Your task to perform on an android device: Add "corsair k70" to the cart on bestbuy.com Image 0: 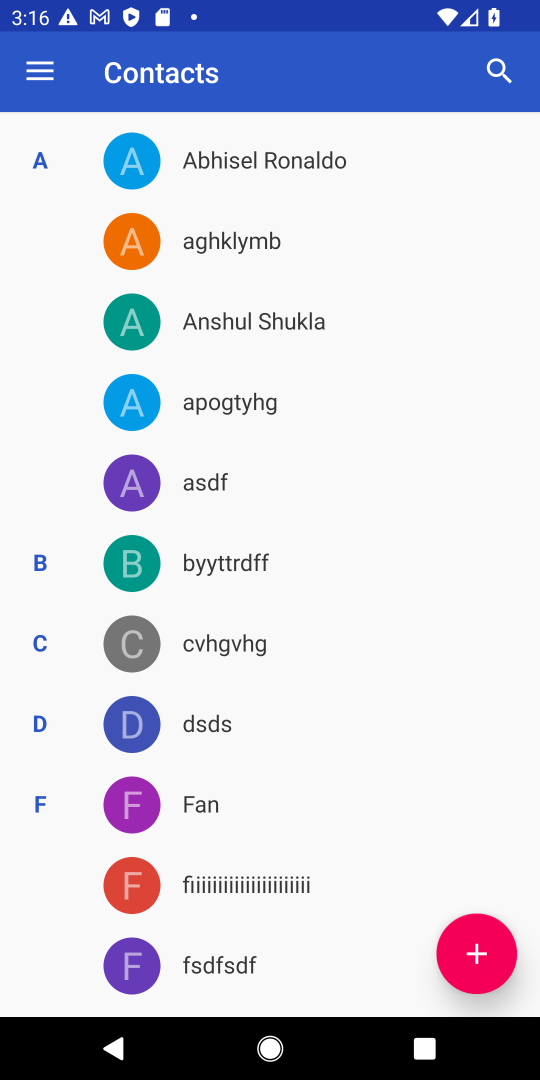
Step 0: press home button
Your task to perform on an android device: Add "corsair k70" to the cart on bestbuy.com Image 1: 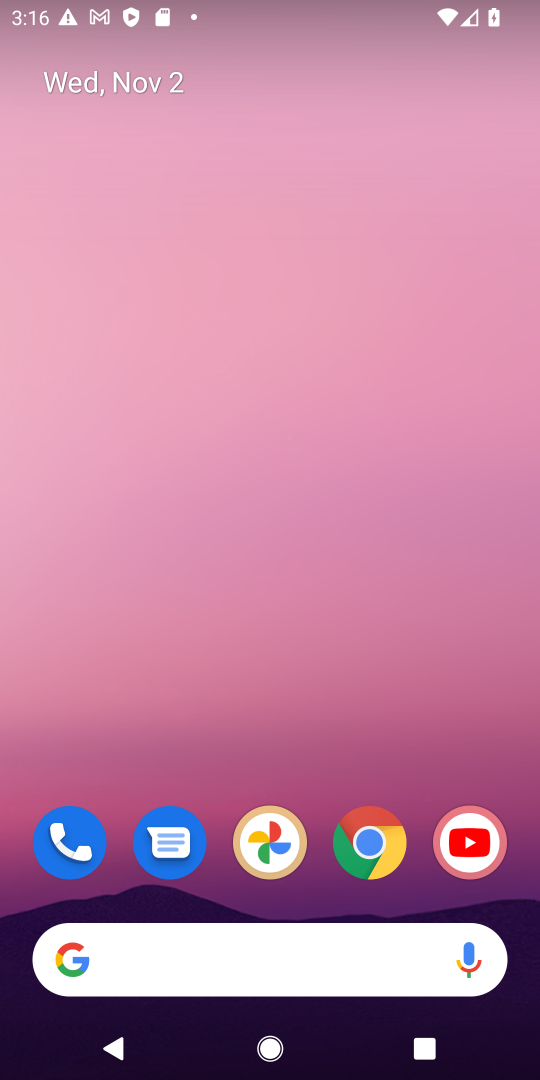
Step 1: click (361, 855)
Your task to perform on an android device: Add "corsair k70" to the cart on bestbuy.com Image 2: 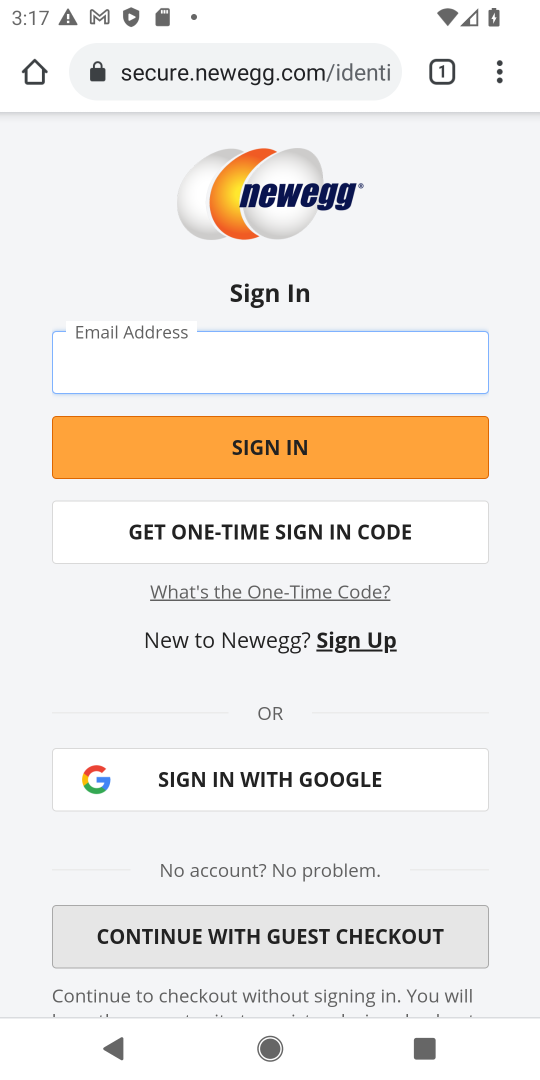
Step 2: click (286, 74)
Your task to perform on an android device: Add "corsair k70" to the cart on bestbuy.com Image 3: 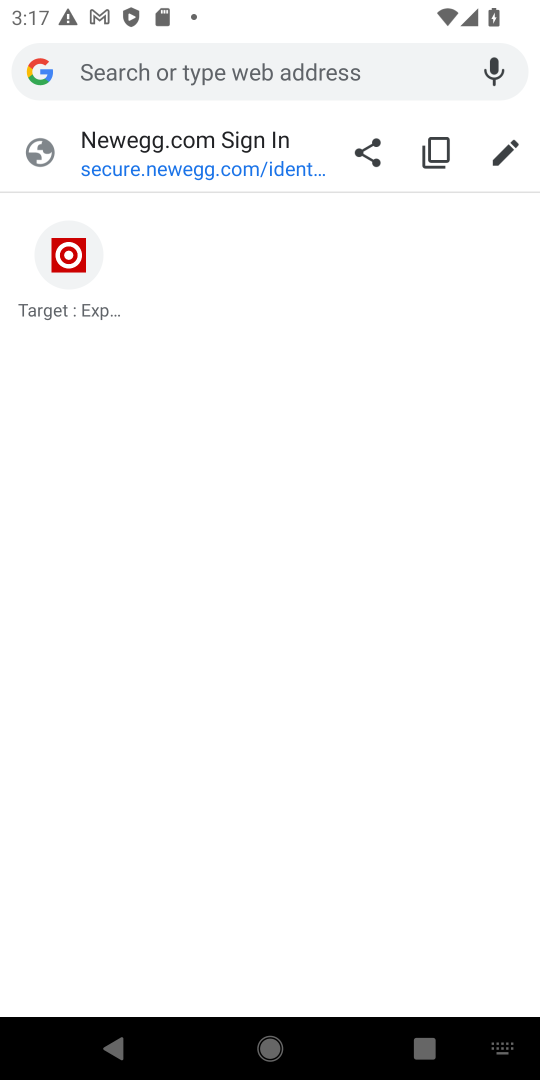
Step 3: type "bestbuy"
Your task to perform on an android device: Add "corsair k70" to the cart on bestbuy.com Image 4: 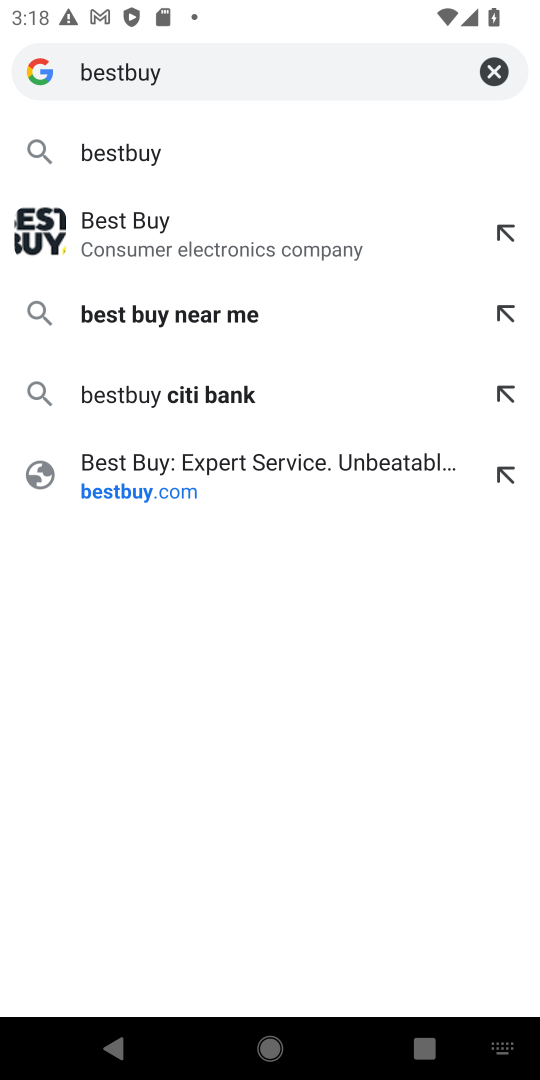
Step 4: click (162, 150)
Your task to perform on an android device: Add "corsair k70" to the cart on bestbuy.com Image 5: 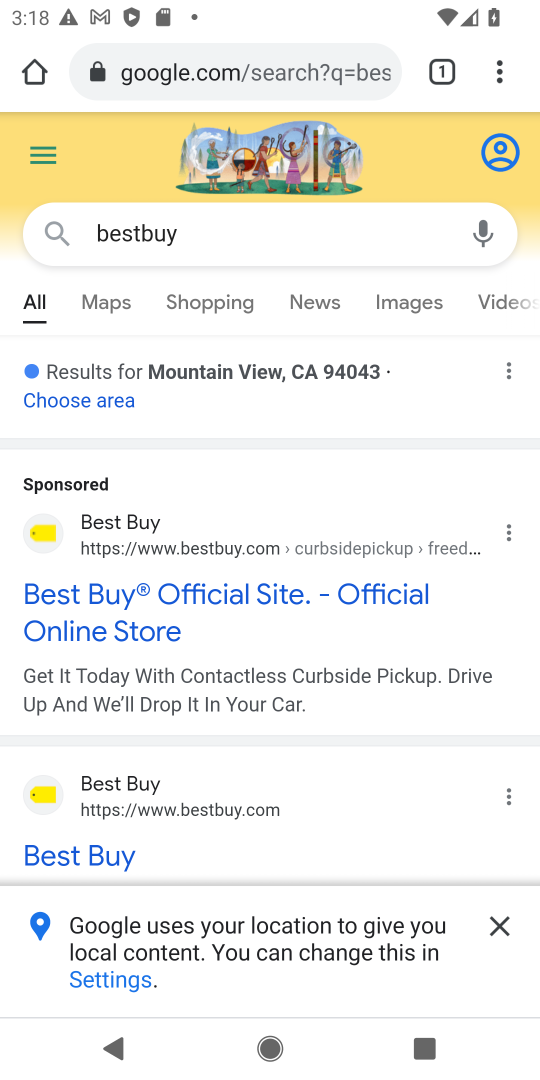
Step 5: click (68, 590)
Your task to perform on an android device: Add "corsair k70" to the cart on bestbuy.com Image 6: 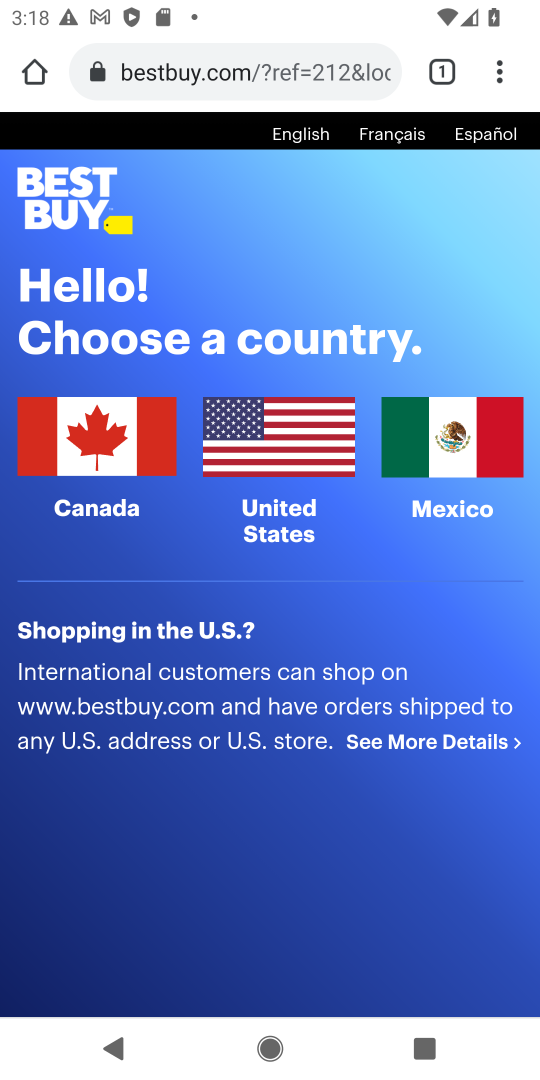
Step 6: click (282, 438)
Your task to perform on an android device: Add "corsair k70" to the cart on bestbuy.com Image 7: 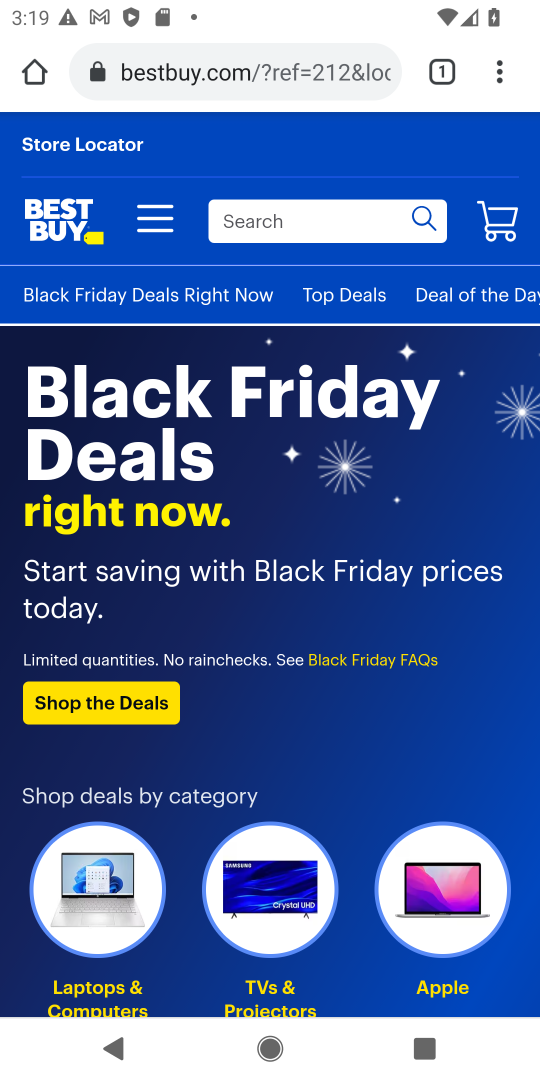
Step 7: click (344, 221)
Your task to perform on an android device: Add "corsair k70" to the cart on bestbuy.com Image 8: 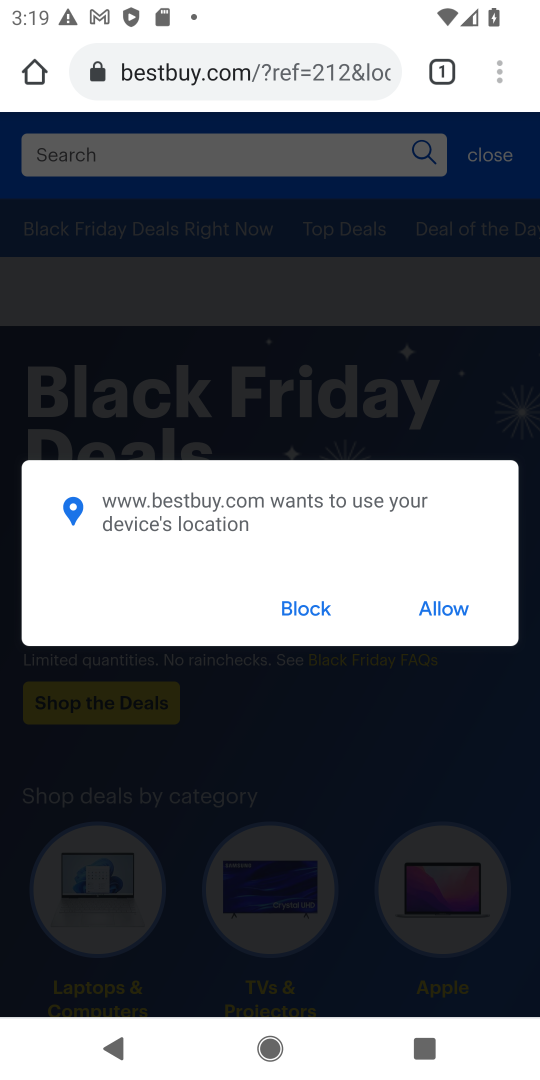
Step 8: click (452, 626)
Your task to perform on an android device: Add "corsair k70" to the cart on bestbuy.com Image 9: 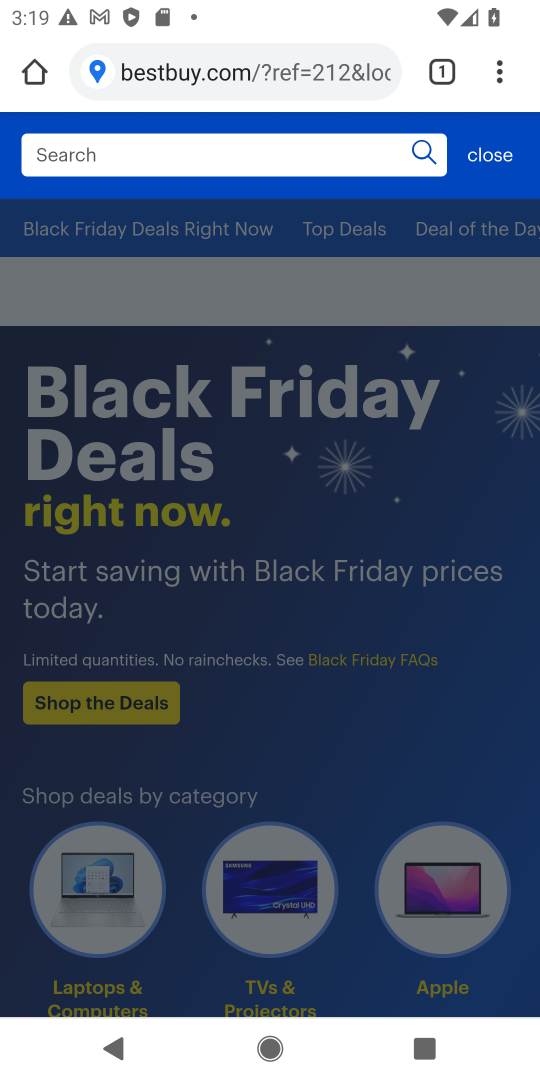
Step 9: click (445, 595)
Your task to perform on an android device: Add "corsair k70" to the cart on bestbuy.com Image 10: 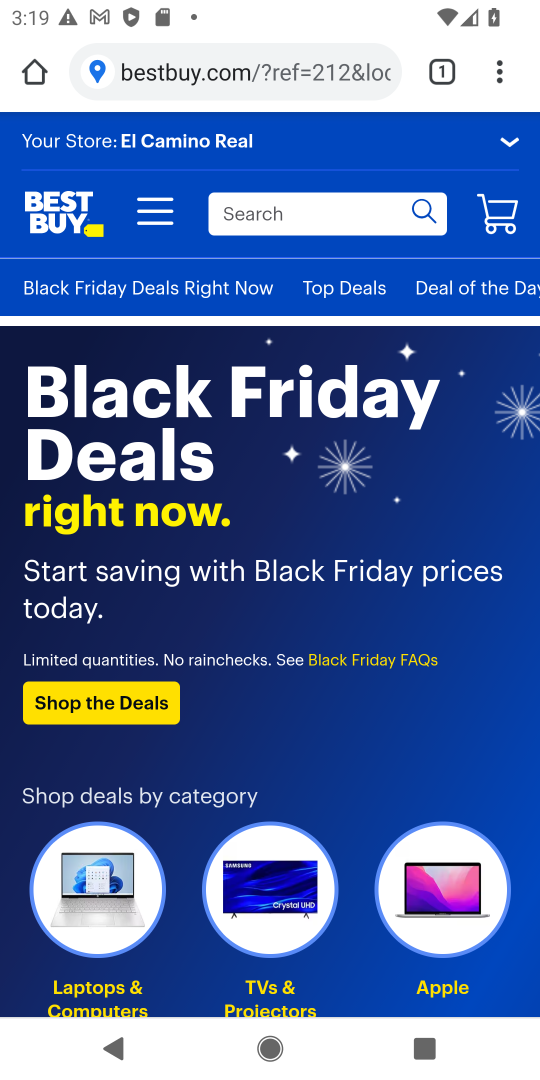
Step 10: click (252, 211)
Your task to perform on an android device: Add "corsair k70" to the cart on bestbuy.com Image 11: 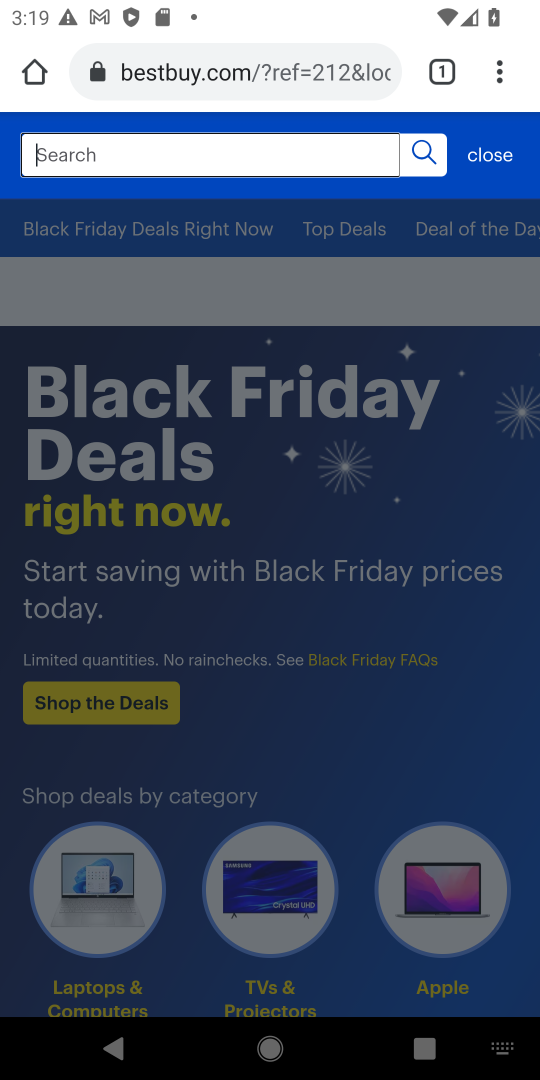
Step 11: type "corsair k70"
Your task to perform on an android device: Add "corsair k70" to the cart on bestbuy.com Image 12: 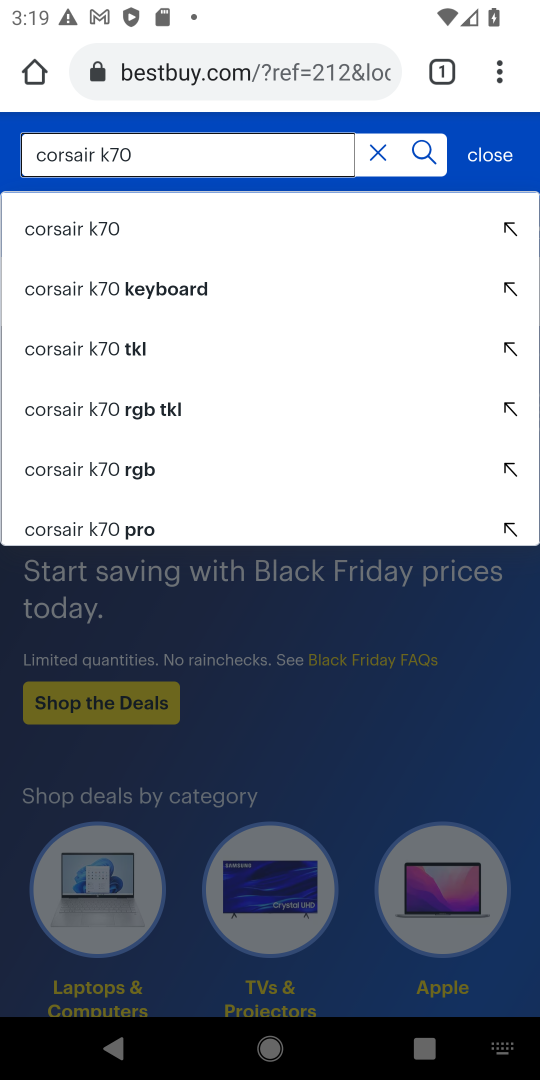
Step 12: click (45, 231)
Your task to perform on an android device: Add "corsair k70" to the cart on bestbuy.com Image 13: 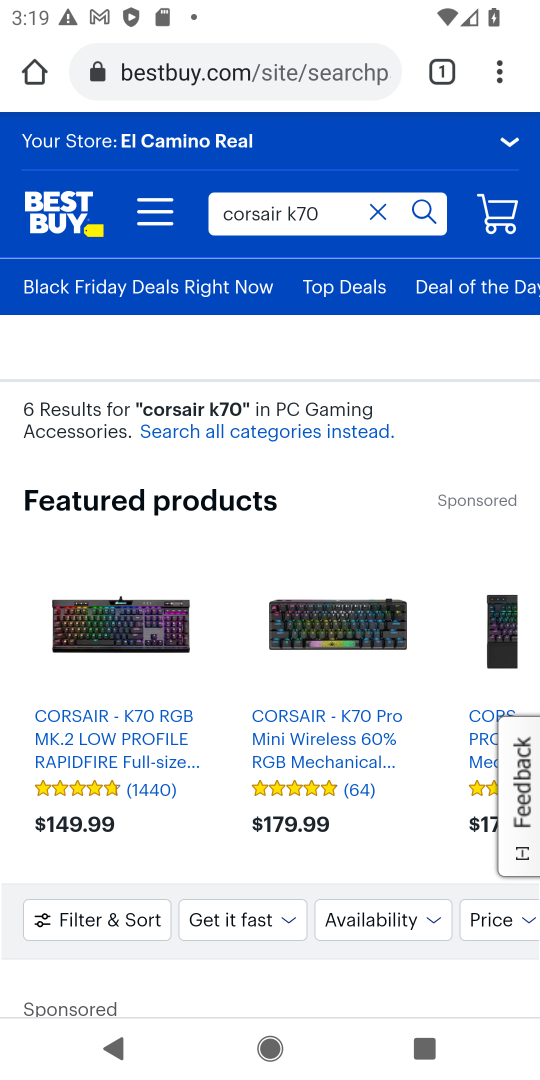
Step 13: drag from (309, 522) to (311, 217)
Your task to perform on an android device: Add "corsair k70" to the cart on bestbuy.com Image 14: 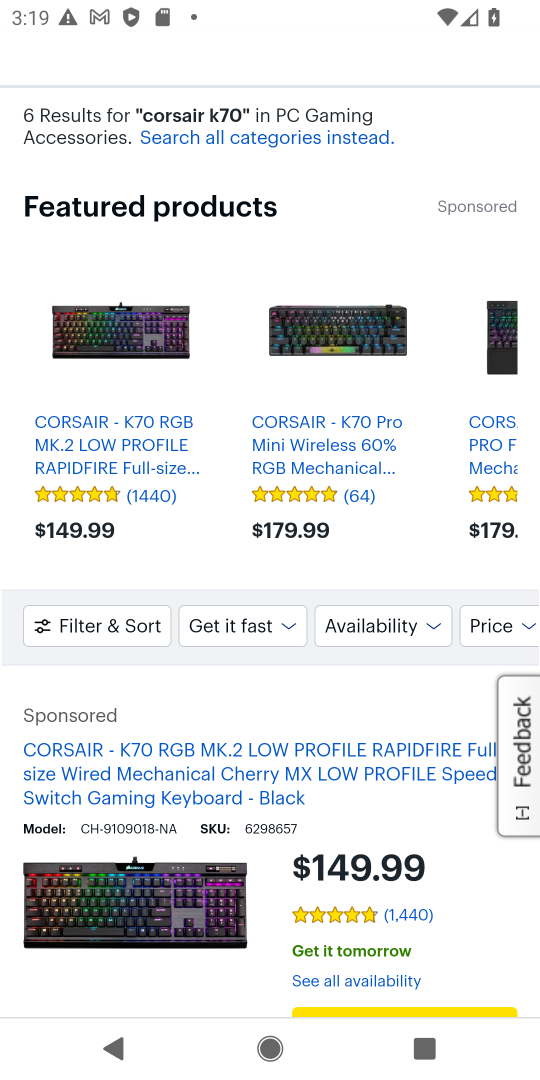
Step 14: click (129, 783)
Your task to perform on an android device: Add "corsair k70" to the cart on bestbuy.com Image 15: 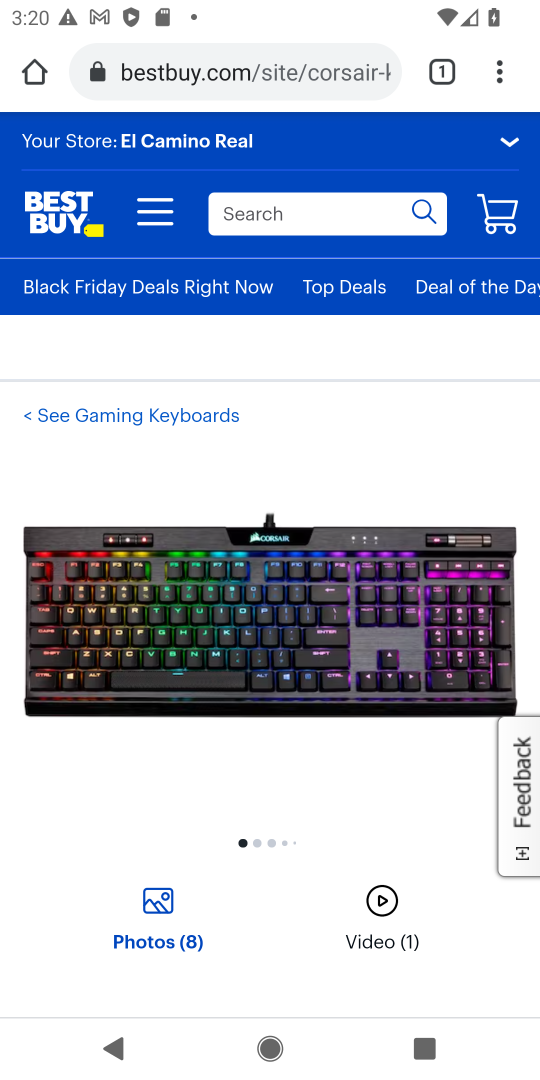
Step 15: task complete